Your task to perform on an android device: Add "amazon basics triple a" to the cart on newegg, then select checkout. Image 0: 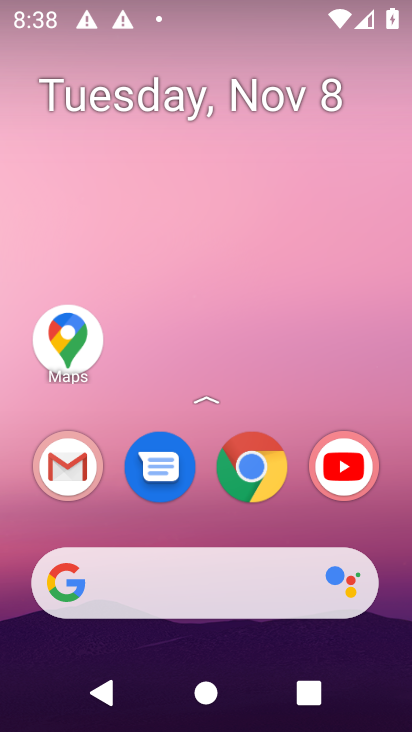
Step 0: click (269, 578)
Your task to perform on an android device: Add "amazon basics triple a" to the cart on newegg, then select checkout. Image 1: 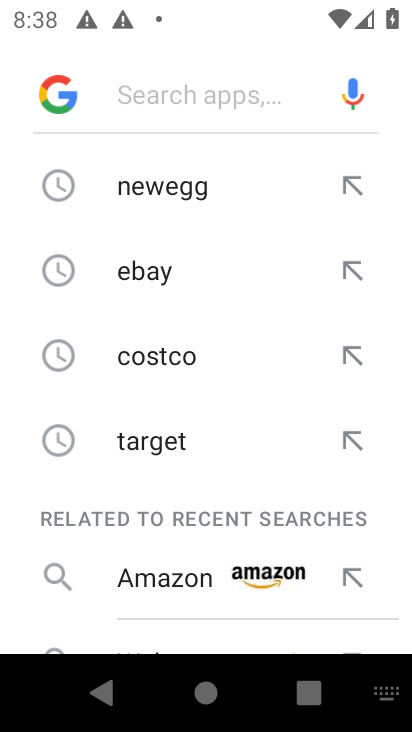
Step 1: type "amazon basics triple"
Your task to perform on an android device: Add "amazon basics triple a" to the cart on newegg, then select checkout. Image 2: 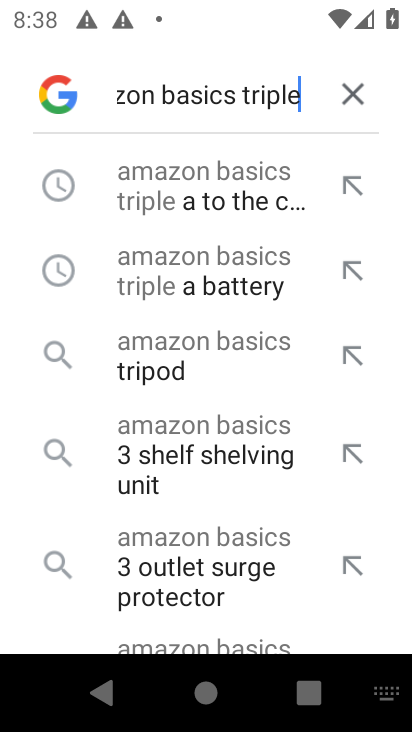
Step 2: click (173, 202)
Your task to perform on an android device: Add "amazon basics triple a" to the cart on newegg, then select checkout. Image 3: 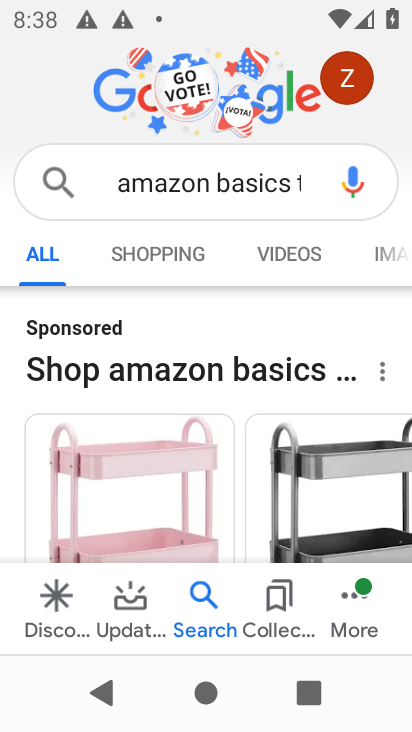
Step 3: task complete